Your task to perform on an android device: Open calendar and show me the first week of next month Image 0: 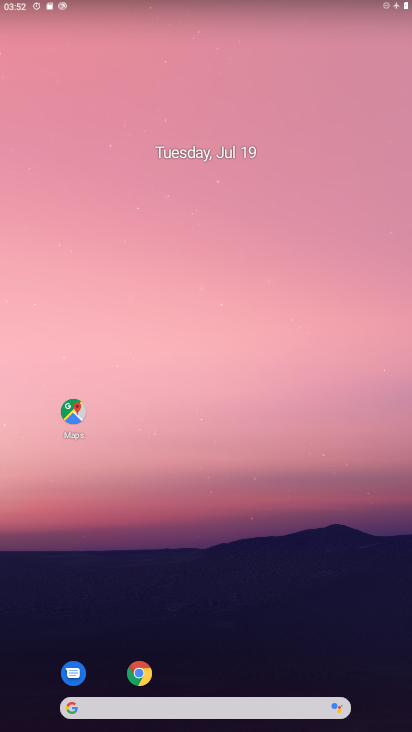
Step 0: drag from (202, 672) to (191, 62)
Your task to perform on an android device: Open calendar and show me the first week of next month Image 1: 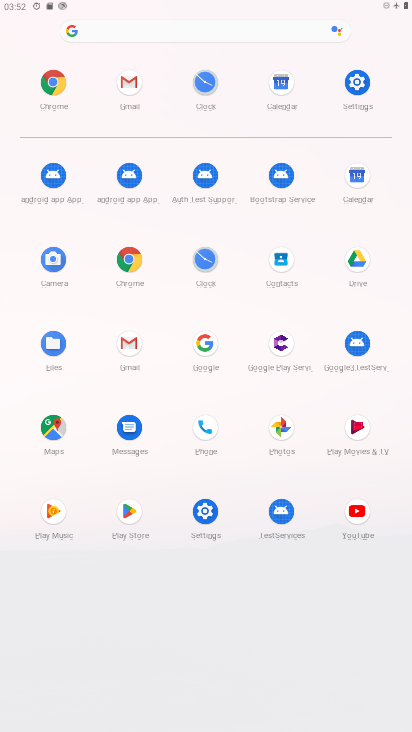
Step 1: click (356, 191)
Your task to perform on an android device: Open calendar and show me the first week of next month Image 2: 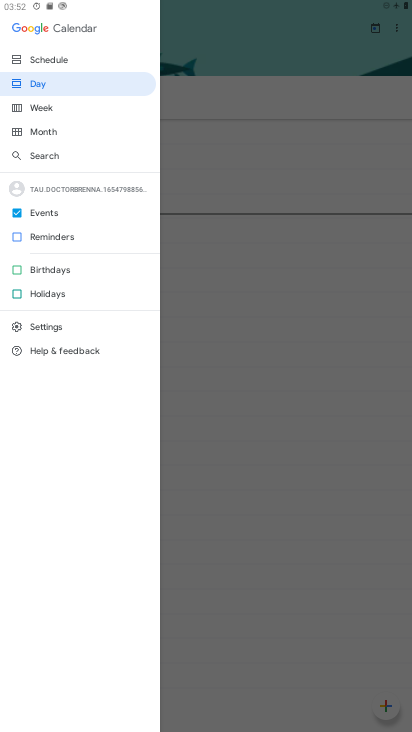
Step 2: click (55, 235)
Your task to perform on an android device: Open calendar and show me the first week of next month Image 3: 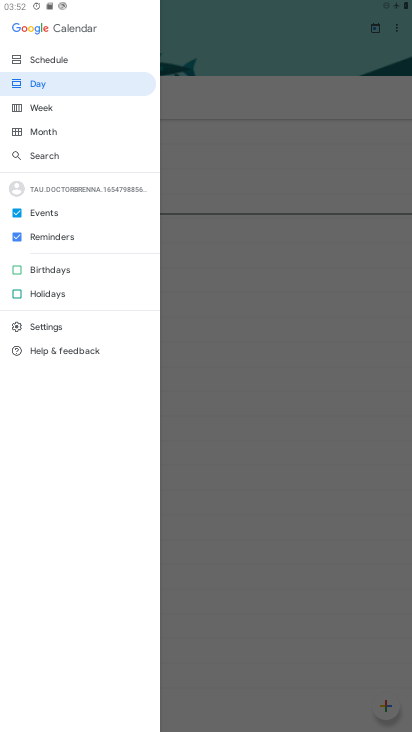
Step 3: click (58, 273)
Your task to perform on an android device: Open calendar and show me the first week of next month Image 4: 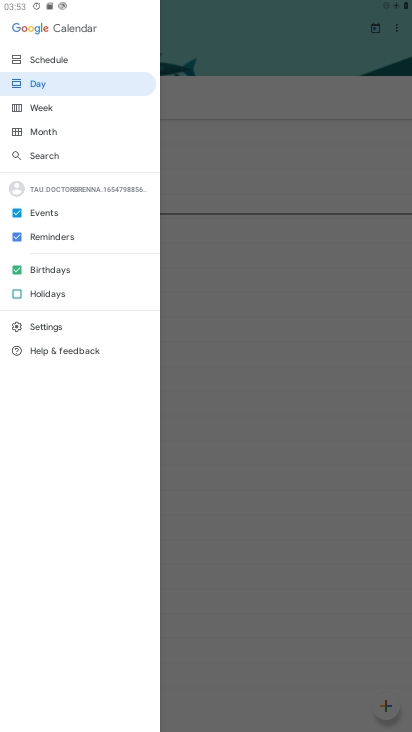
Step 4: click (44, 298)
Your task to perform on an android device: Open calendar and show me the first week of next month Image 5: 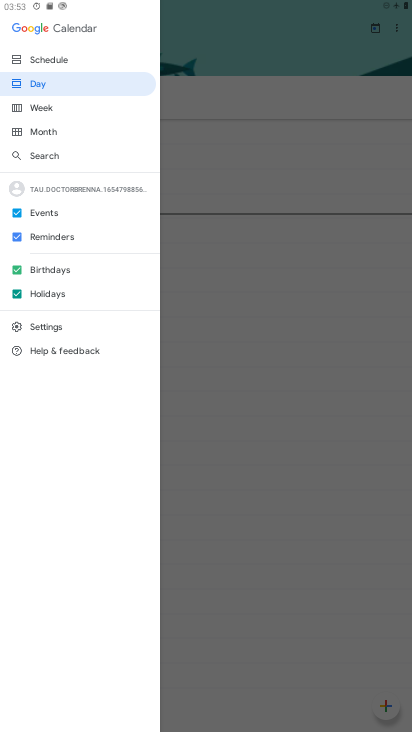
Step 5: click (45, 106)
Your task to perform on an android device: Open calendar and show me the first week of next month Image 6: 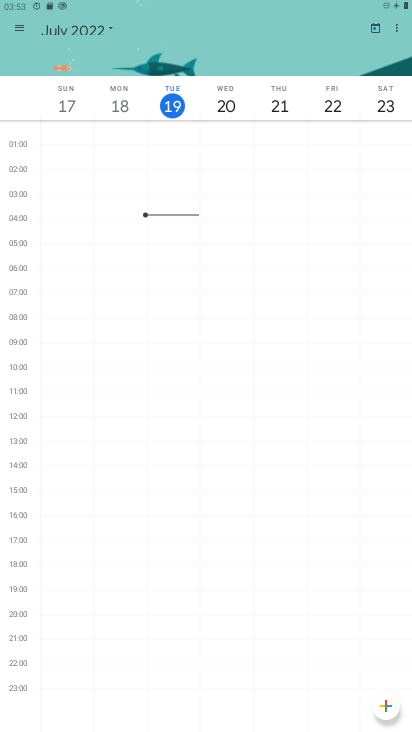
Step 6: task complete